Your task to perform on an android device: What's on my calendar tomorrow? Image 0: 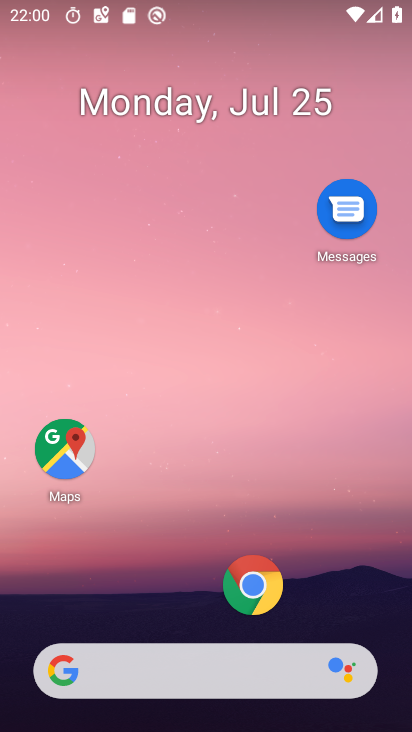
Step 0: drag from (210, 653) to (270, 114)
Your task to perform on an android device: What's on my calendar tomorrow? Image 1: 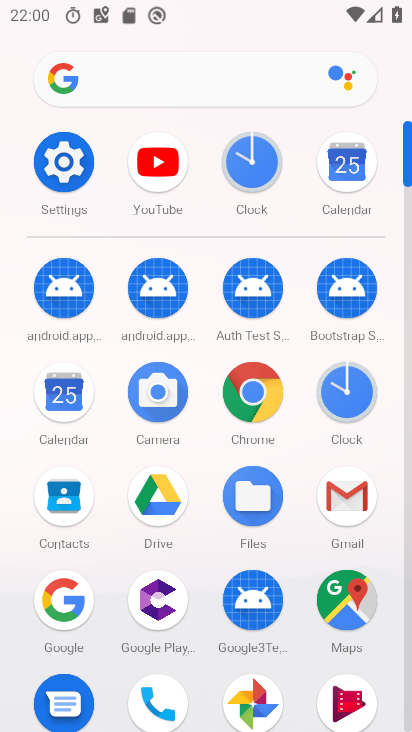
Step 1: click (340, 181)
Your task to perform on an android device: What's on my calendar tomorrow? Image 2: 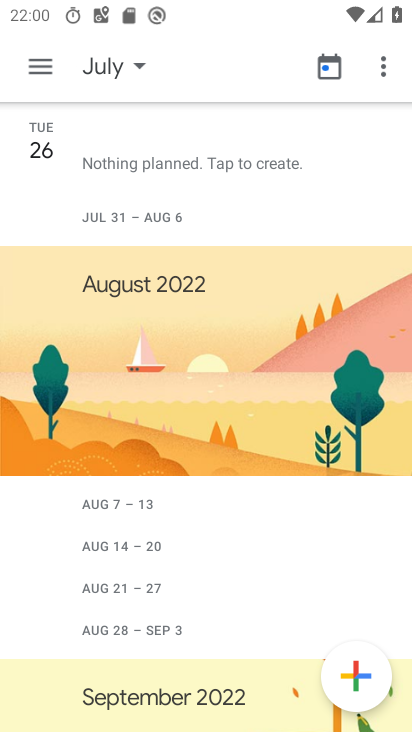
Step 2: task complete